Your task to perform on an android device: set the stopwatch Image 0: 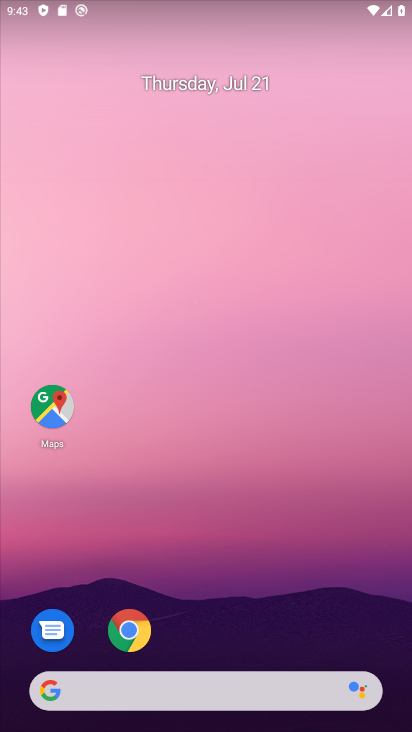
Step 0: drag from (177, 97) to (137, 73)
Your task to perform on an android device: set the stopwatch Image 1: 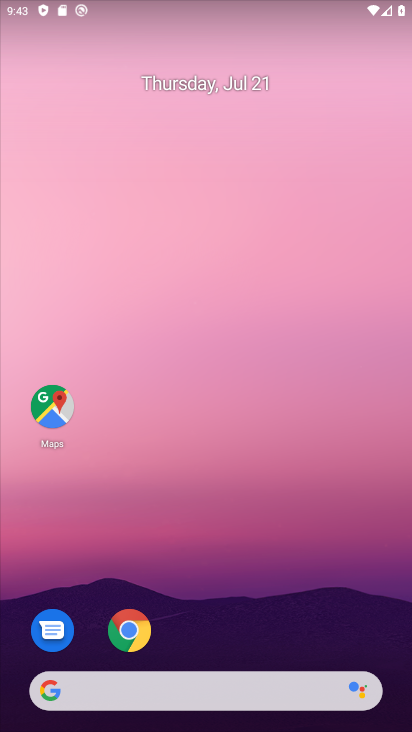
Step 1: drag from (256, 466) to (226, 131)
Your task to perform on an android device: set the stopwatch Image 2: 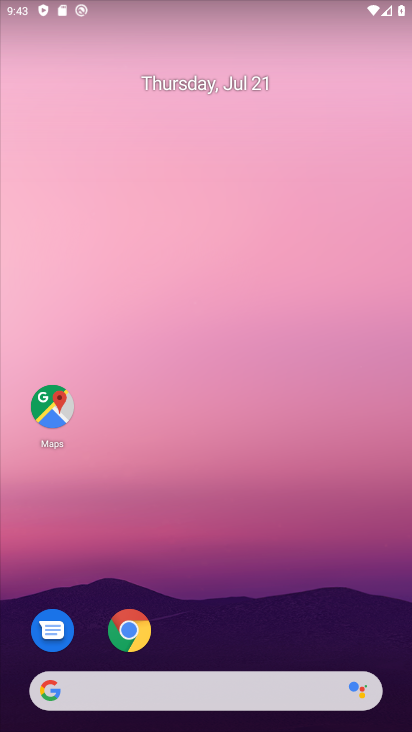
Step 2: drag from (213, 575) to (142, 91)
Your task to perform on an android device: set the stopwatch Image 3: 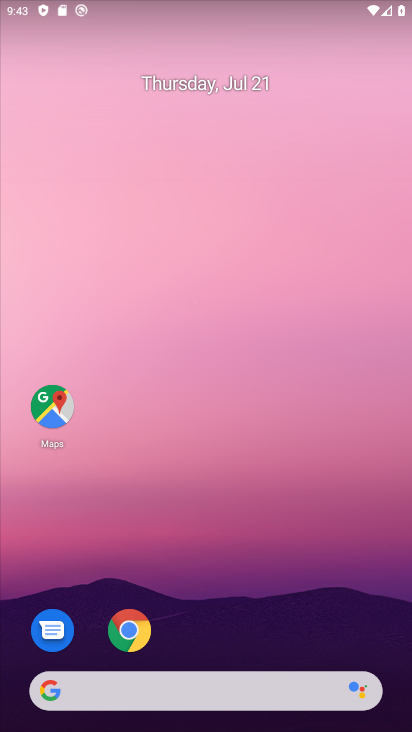
Step 3: drag from (211, 544) to (164, 38)
Your task to perform on an android device: set the stopwatch Image 4: 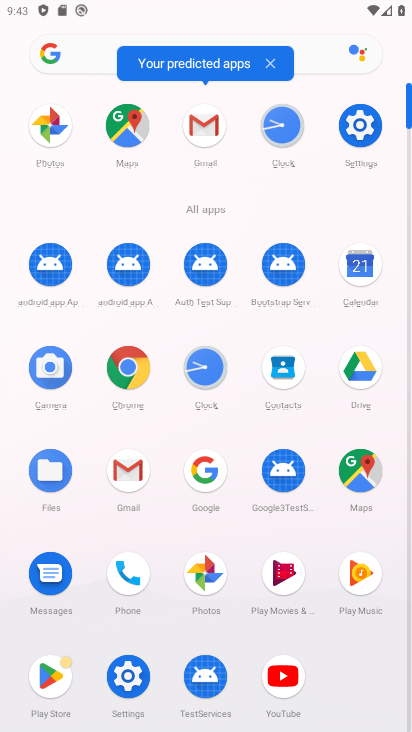
Step 4: click (285, 122)
Your task to perform on an android device: set the stopwatch Image 5: 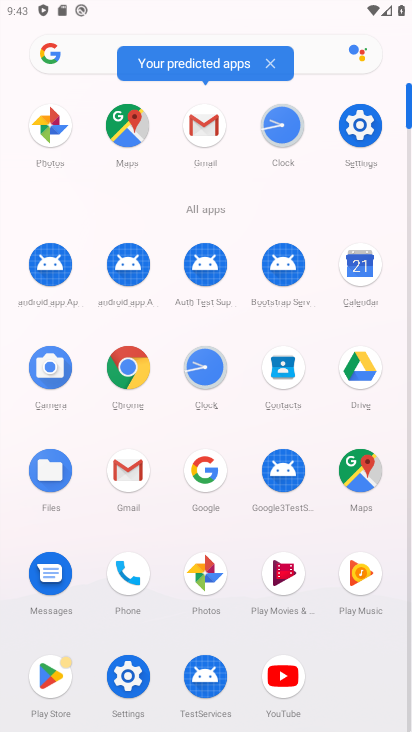
Step 5: click (286, 121)
Your task to perform on an android device: set the stopwatch Image 6: 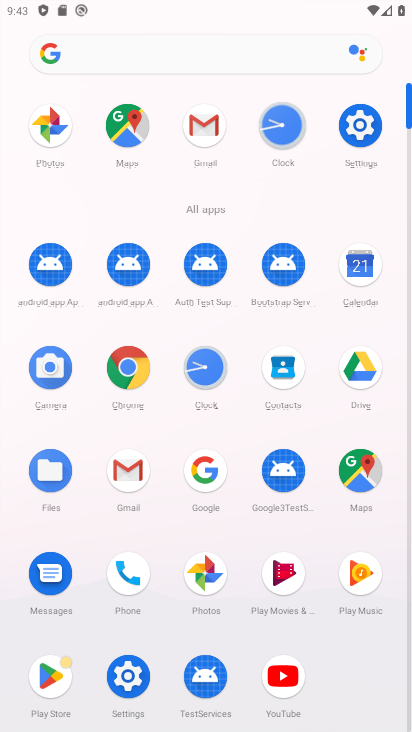
Step 6: click (286, 121)
Your task to perform on an android device: set the stopwatch Image 7: 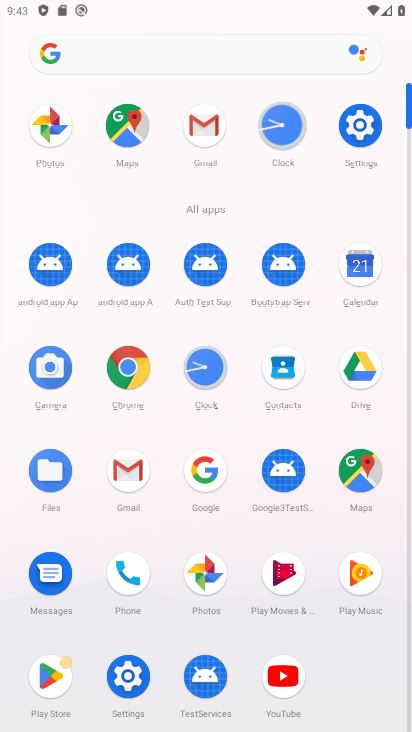
Step 7: click (286, 121)
Your task to perform on an android device: set the stopwatch Image 8: 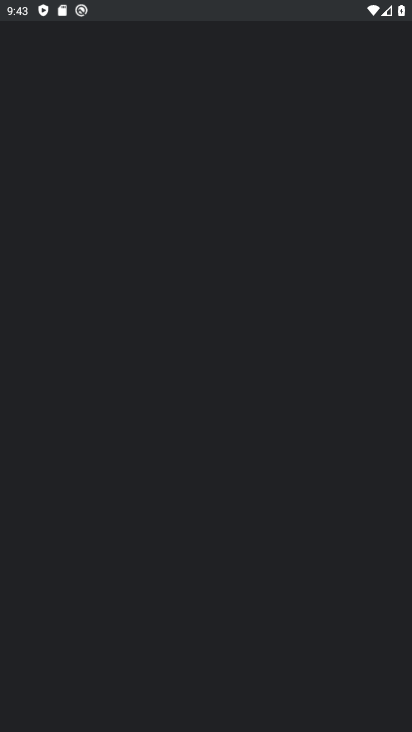
Step 8: click (289, 129)
Your task to perform on an android device: set the stopwatch Image 9: 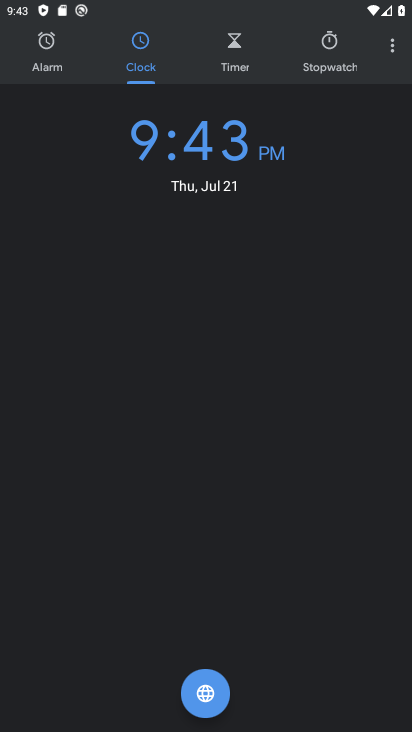
Step 9: click (341, 60)
Your task to perform on an android device: set the stopwatch Image 10: 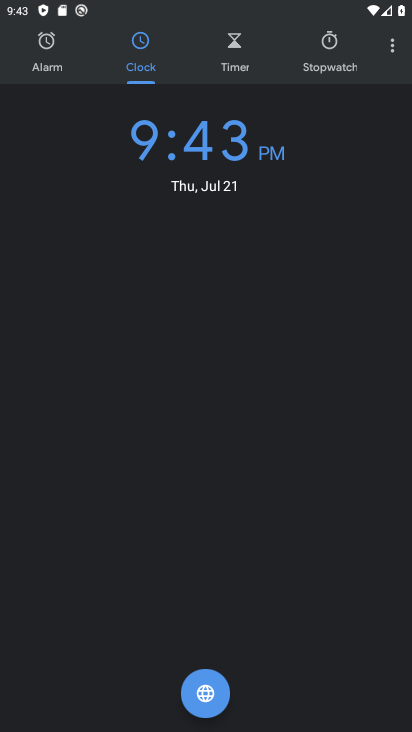
Step 10: click (335, 57)
Your task to perform on an android device: set the stopwatch Image 11: 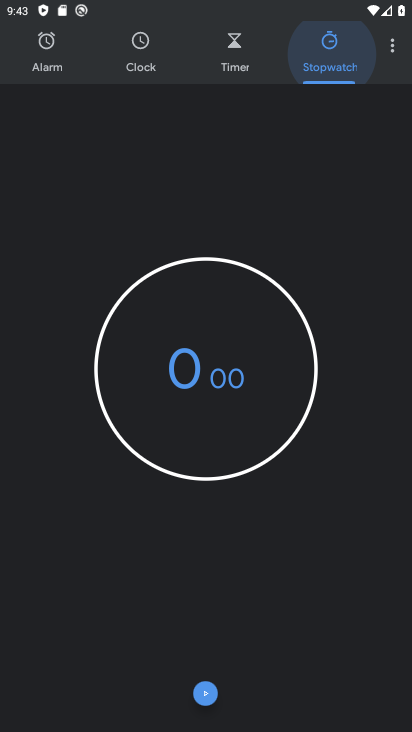
Step 11: click (335, 57)
Your task to perform on an android device: set the stopwatch Image 12: 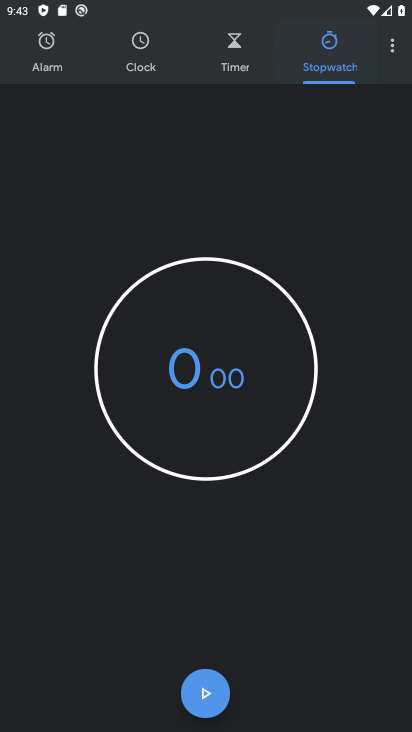
Step 12: click (335, 57)
Your task to perform on an android device: set the stopwatch Image 13: 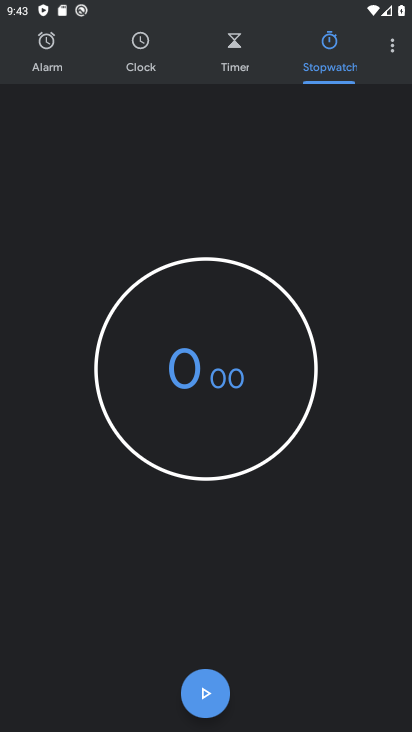
Step 13: click (205, 712)
Your task to perform on an android device: set the stopwatch Image 14: 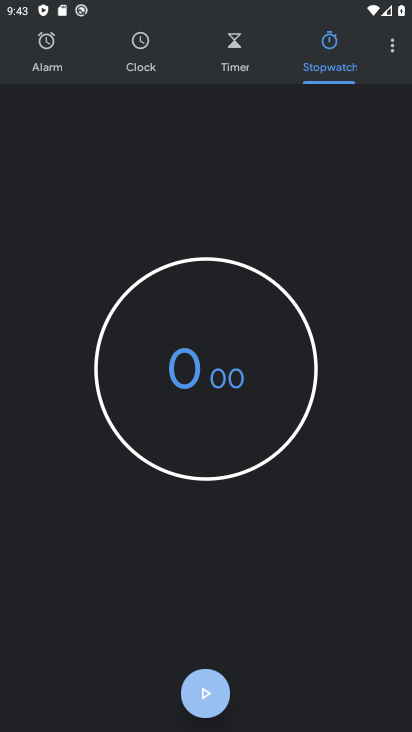
Step 14: click (204, 696)
Your task to perform on an android device: set the stopwatch Image 15: 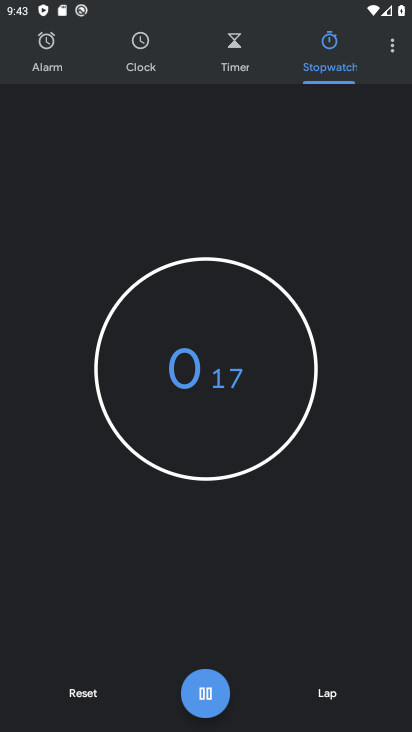
Step 15: click (204, 696)
Your task to perform on an android device: set the stopwatch Image 16: 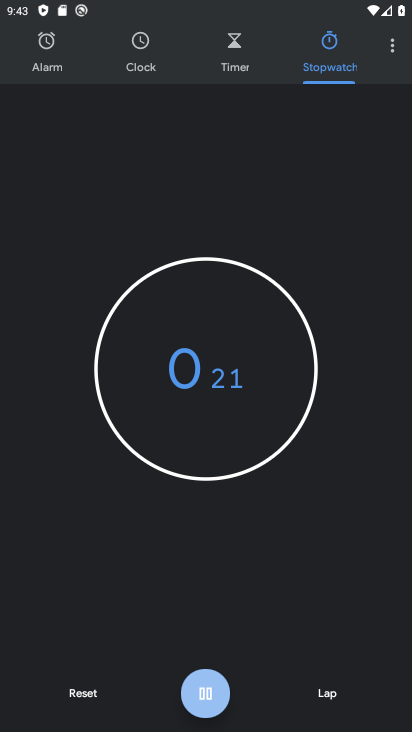
Step 16: click (204, 696)
Your task to perform on an android device: set the stopwatch Image 17: 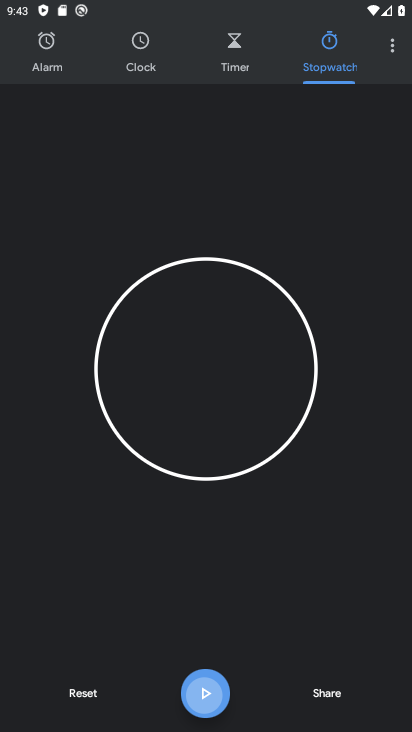
Step 17: click (204, 696)
Your task to perform on an android device: set the stopwatch Image 18: 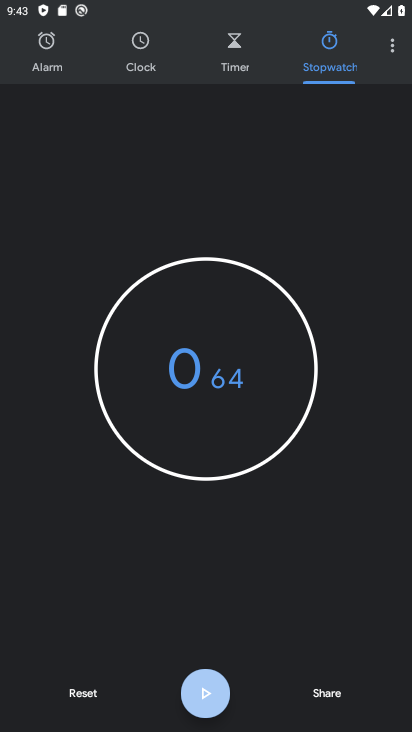
Step 18: click (205, 696)
Your task to perform on an android device: set the stopwatch Image 19: 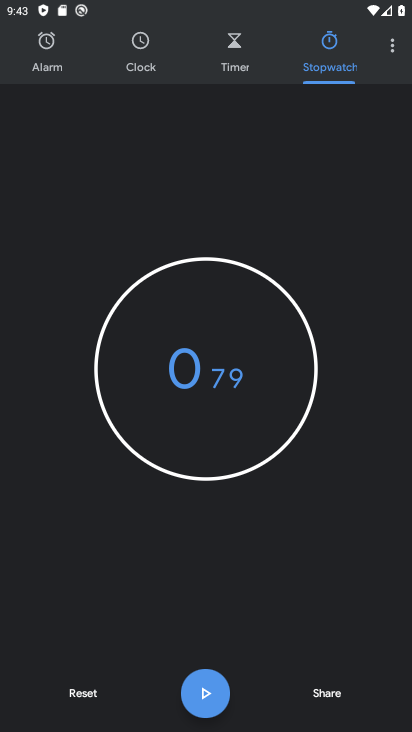
Step 19: click (208, 698)
Your task to perform on an android device: set the stopwatch Image 20: 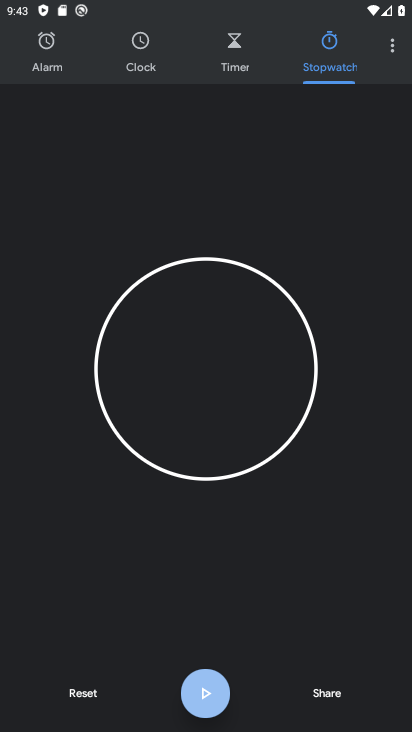
Step 20: click (204, 698)
Your task to perform on an android device: set the stopwatch Image 21: 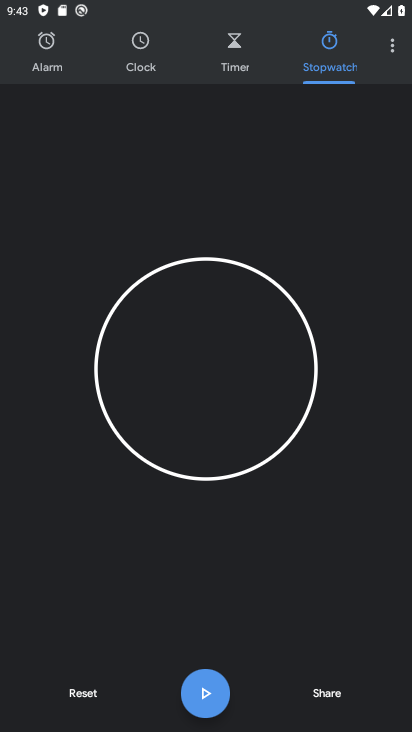
Step 21: click (207, 691)
Your task to perform on an android device: set the stopwatch Image 22: 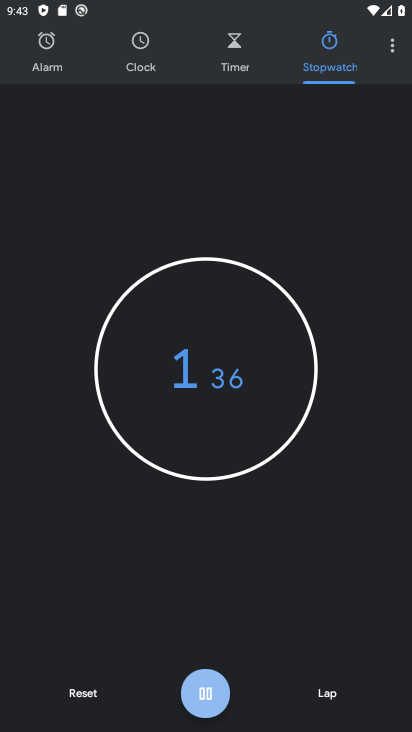
Step 22: click (203, 689)
Your task to perform on an android device: set the stopwatch Image 23: 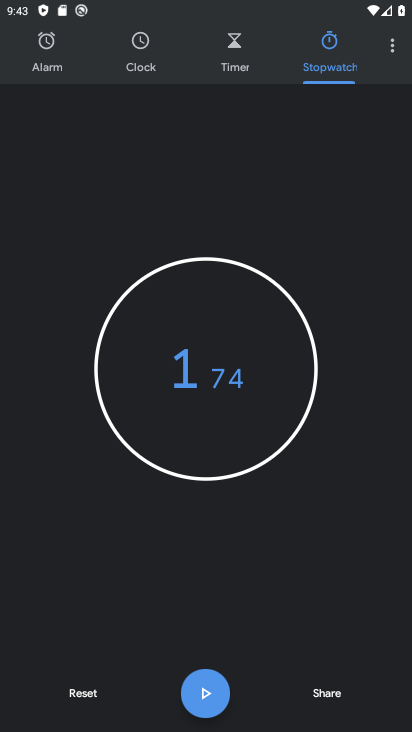
Step 23: click (203, 689)
Your task to perform on an android device: set the stopwatch Image 24: 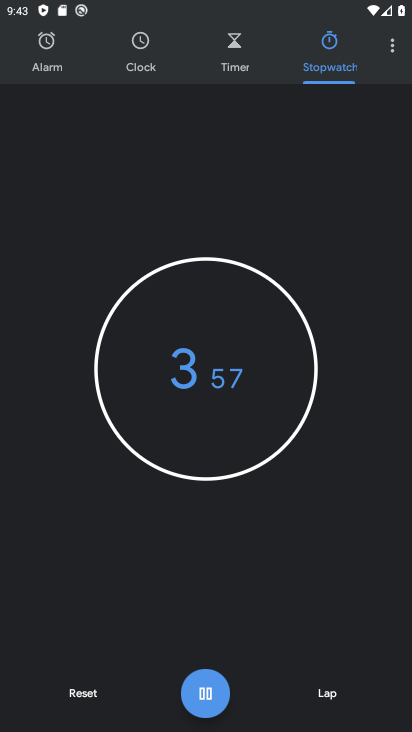
Step 24: click (207, 694)
Your task to perform on an android device: set the stopwatch Image 25: 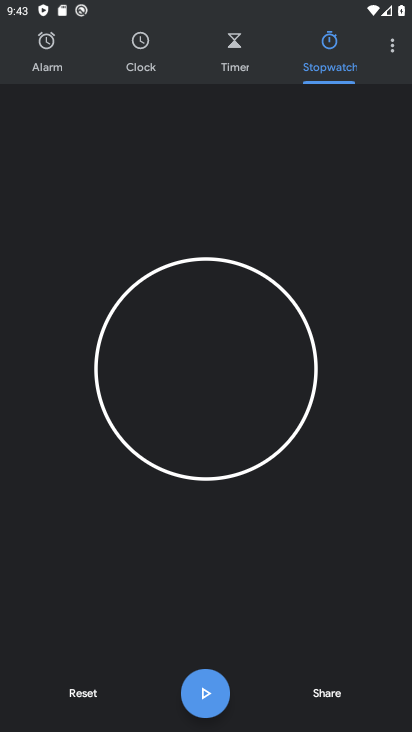
Step 25: task complete